Your task to perform on an android device: empty trash in the gmail app Image 0: 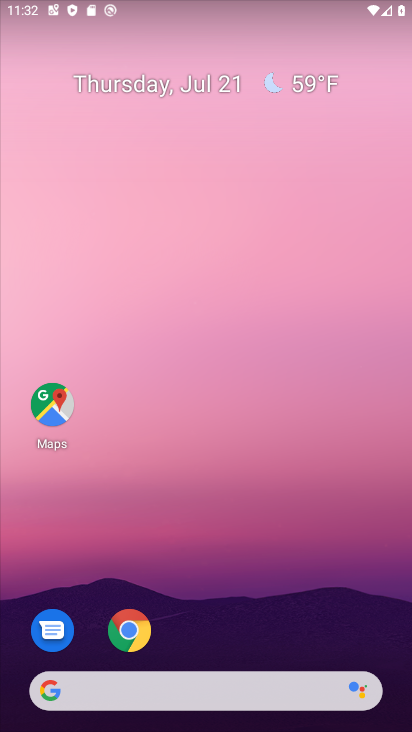
Step 0: drag from (305, 440) to (295, 144)
Your task to perform on an android device: empty trash in the gmail app Image 1: 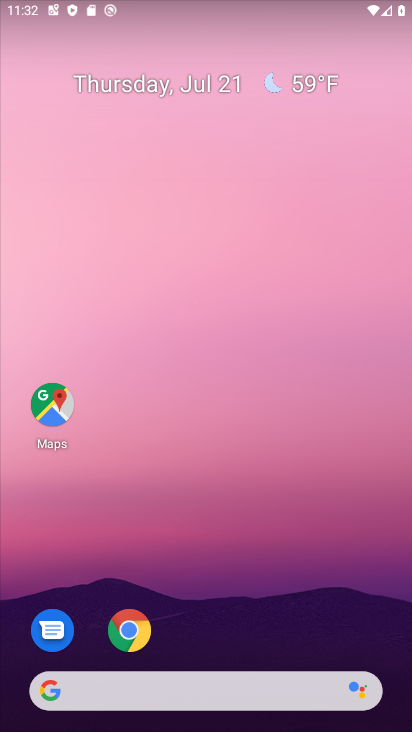
Step 1: drag from (179, 656) to (200, 193)
Your task to perform on an android device: empty trash in the gmail app Image 2: 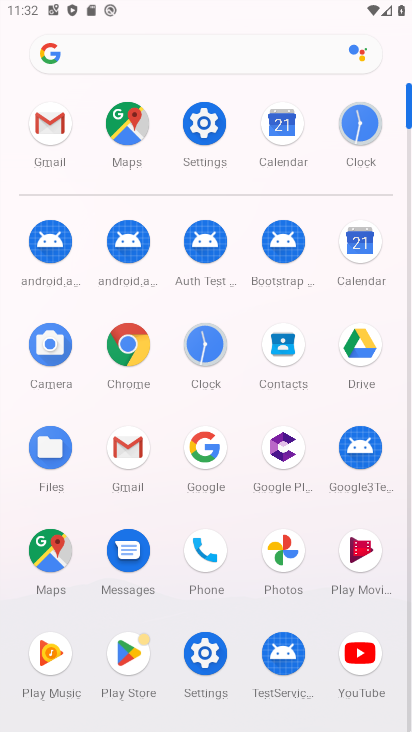
Step 2: click (52, 129)
Your task to perform on an android device: empty trash in the gmail app Image 3: 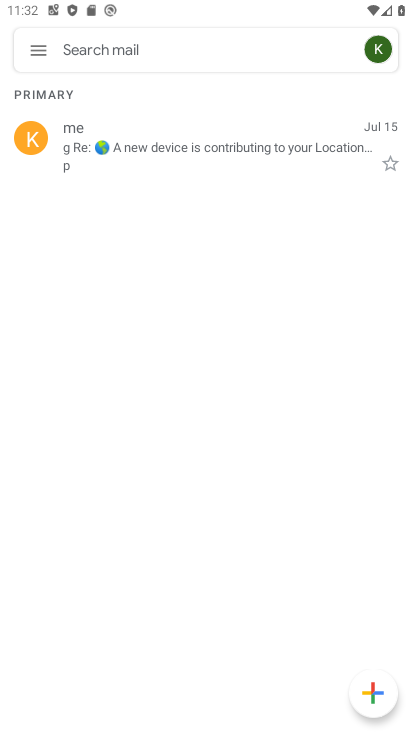
Step 3: click (44, 43)
Your task to perform on an android device: empty trash in the gmail app Image 4: 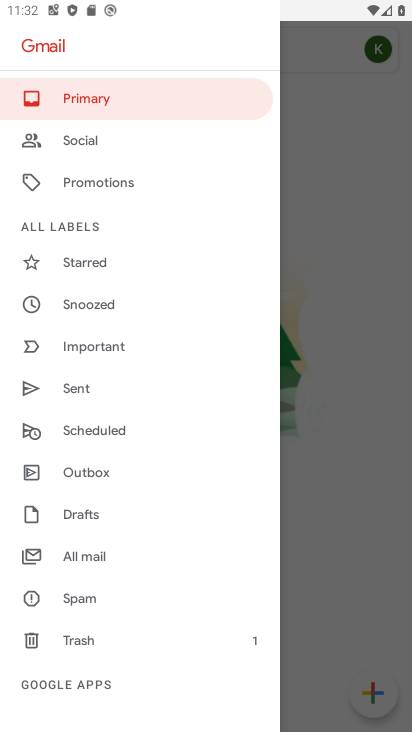
Step 4: click (77, 646)
Your task to perform on an android device: empty trash in the gmail app Image 5: 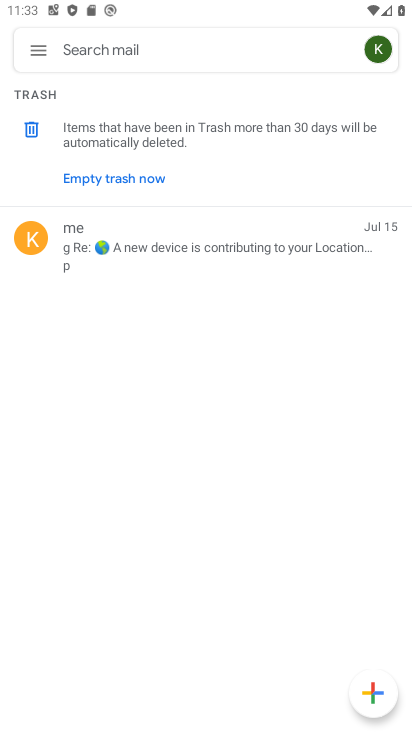
Step 5: task complete